Your task to perform on an android device: open app "Gmail" (install if not already installed) Image 0: 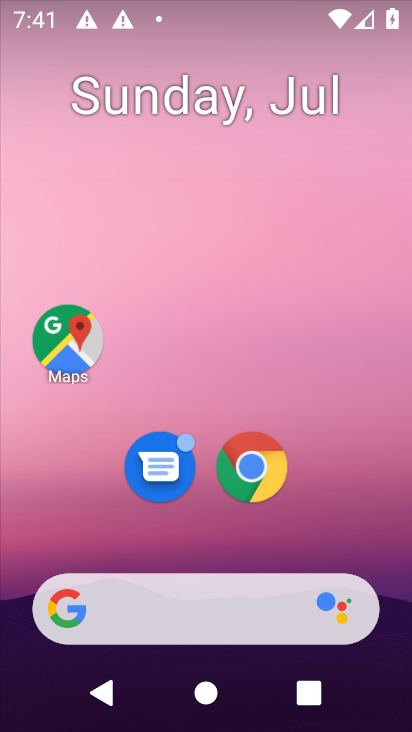
Step 0: drag from (200, 545) to (303, 55)
Your task to perform on an android device: open app "Gmail" (install if not already installed) Image 1: 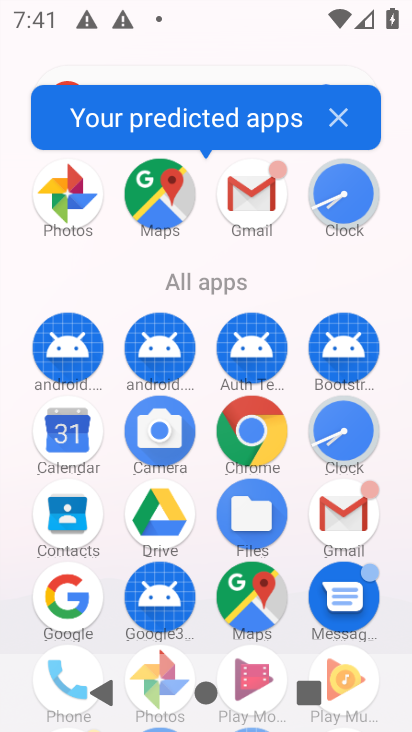
Step 1: click (337, 511)
Your task to perform on an android device: open app "Gmail" (install if not already installed) Image 2: 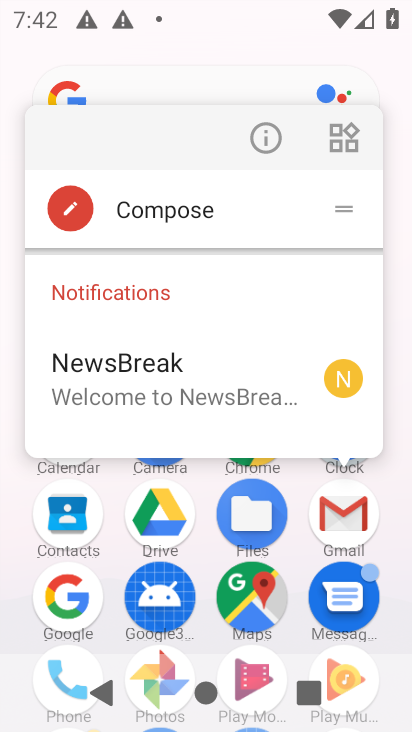
Step 2: click (272, 135)
Your task to perform on an android device: open app "Gmail" (install if not already installed) Image 3: 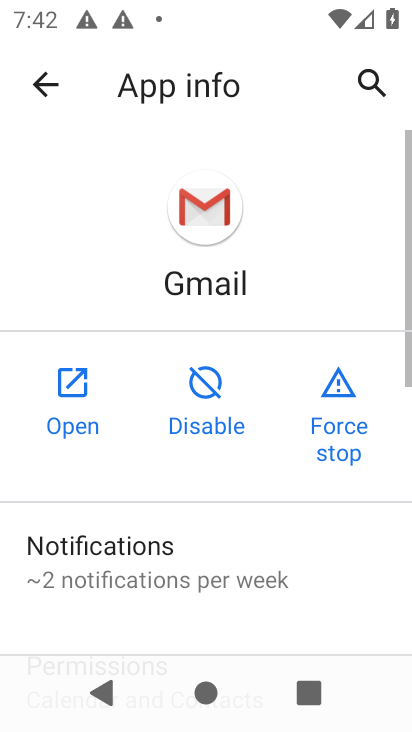
Step 3: click (46, 416)
Your task to perform on an android device: open app "Gmail" (install if not already installed) Image 4: 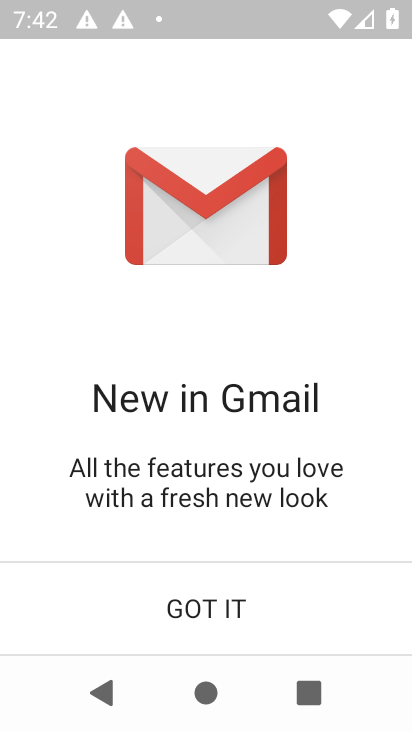
Step 4: click (214, 604)
Your task to perform on an android device: open app "Gmail" (install if not already installed) Image 5: 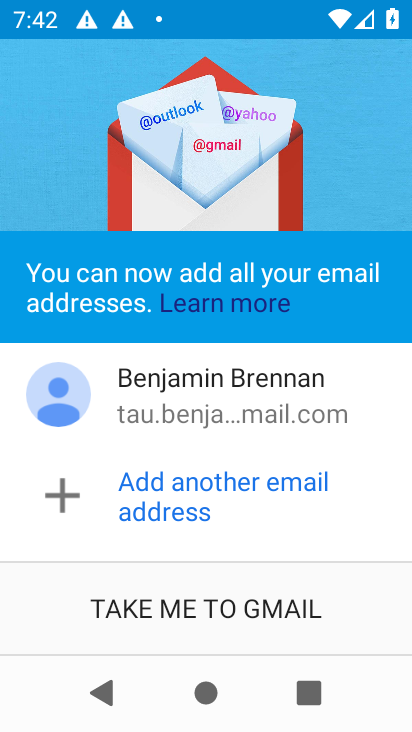
Step 5: click (170, 614)
Your task to perform on an android device: open app "Gmail" (install if not already installed) Image 6: 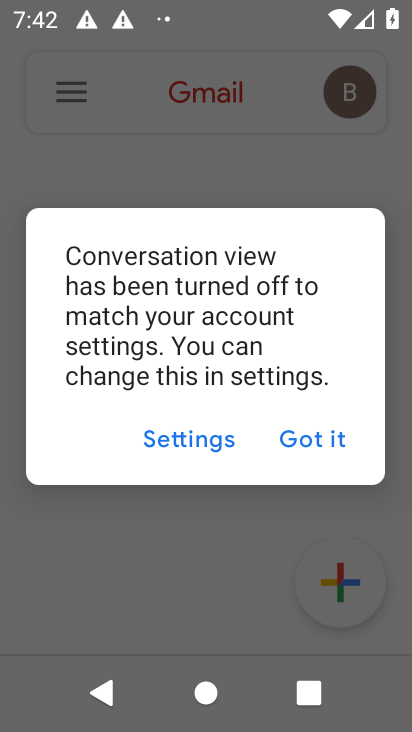
Step 6: drag from (210, 583) to (323, 296)
Your task to perform on an android device: open app "Gmail" (install if not already installed) Image 7: 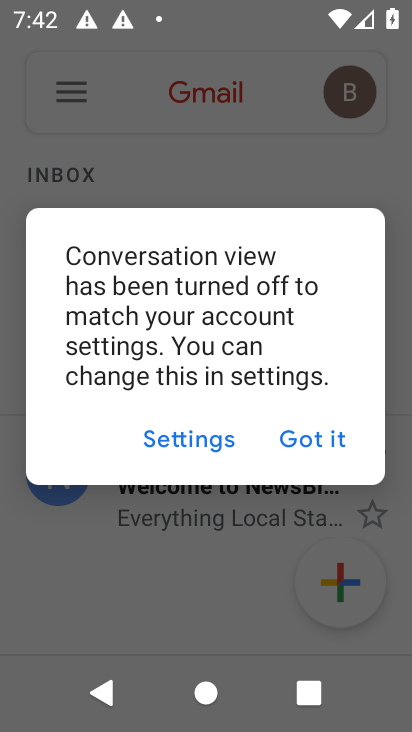
Step 7: click (294, 438)
Your task to perform on an android device: open app "Gmail" (install if not already installed) Image 8: 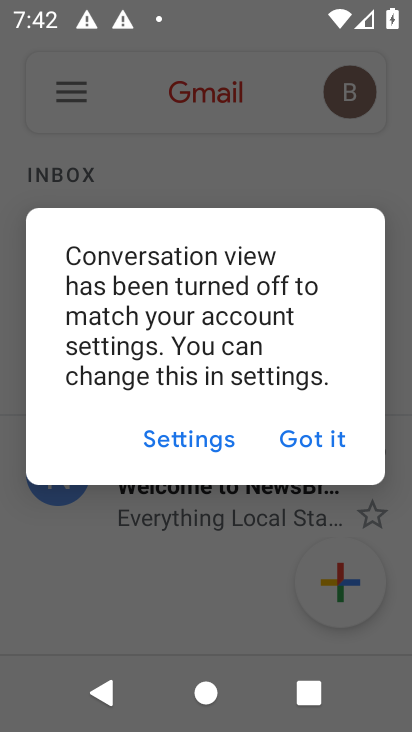
Step 8: click (284, 325)
Your task to perform on an android device: open app "Gmail" (install if not already installed) Image 9: 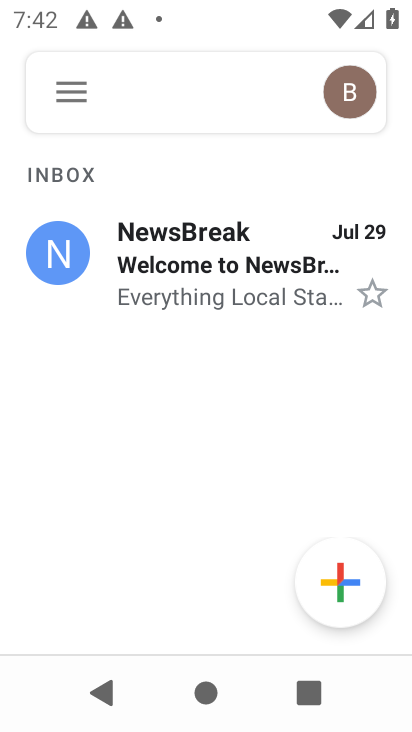
Step 9: task complete